Your task to perform on an android device: Open settings on Google Maps Image 0: 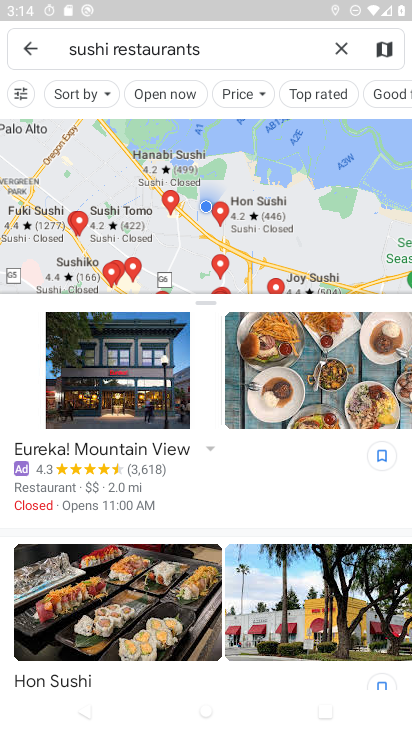
Step 0: task complete